Your task to perform on an android device: toggle airplane mode Image 0: 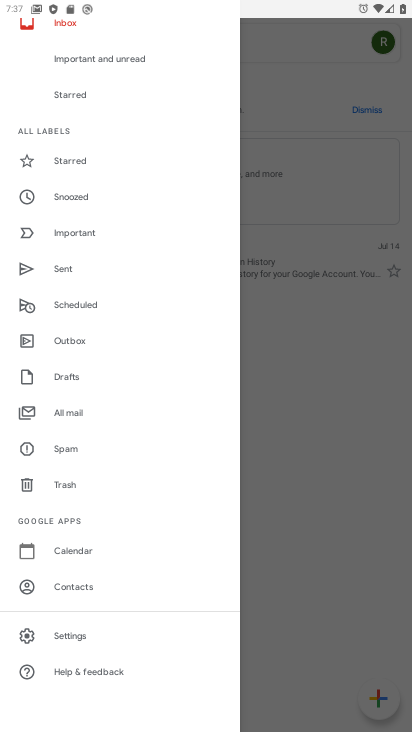
Step 0: press home button
Your task to perform on an android device: toggle airplane mode Image 1: 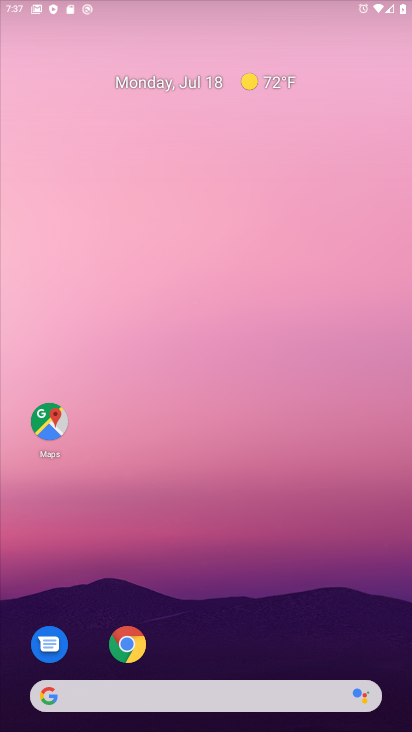
Step 1: drag from (329, 177) to (283, 59)
Your task to perform on an android device: toggle airplane mode Image 2: 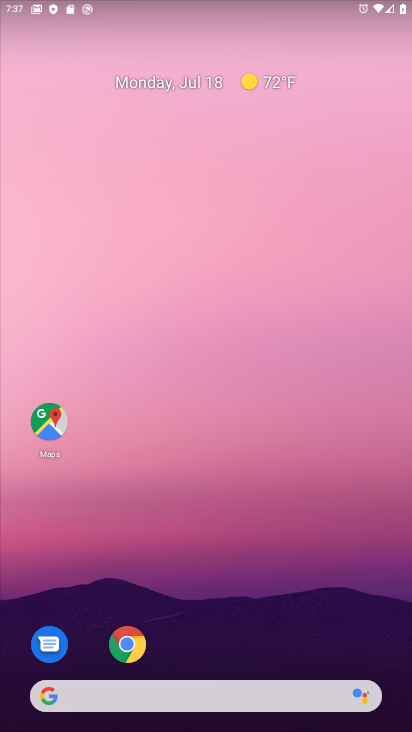
Step 2: drag from (244, 5) to (204, 622)
Your task to perform on an android device: toggle airplane mode Image 3: 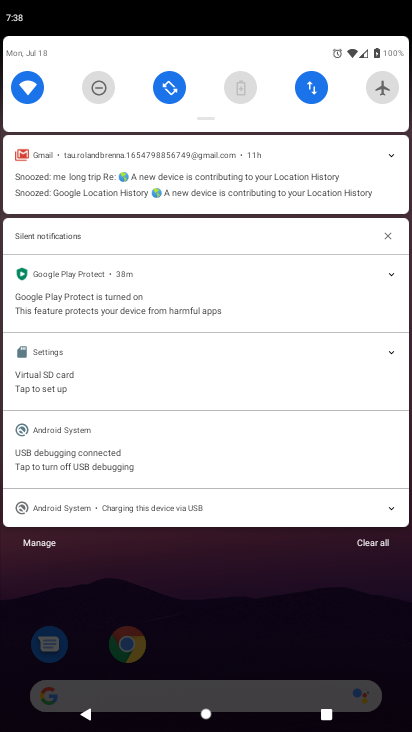
Step 3: click (387, 90)
Your task to perform on an android device: toggle airplane mode Image 4: 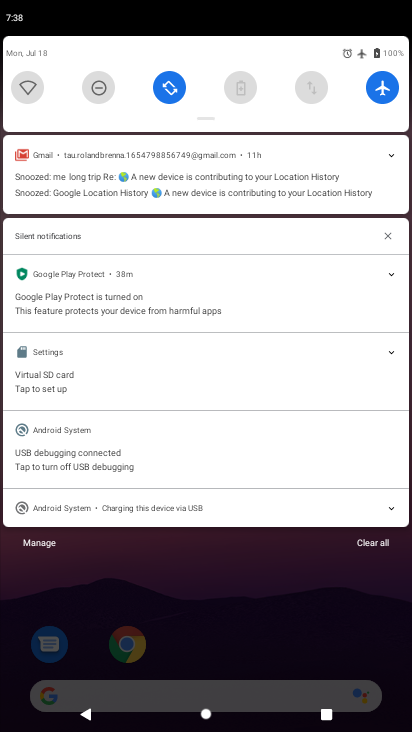
Step 4: task complete